Your task to perform on an android device: check data usage Image 0: 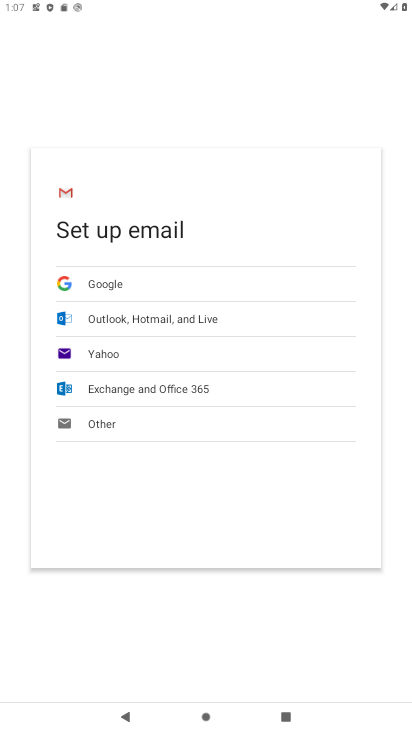
Step 0: press home button
Your task to perform on an android device: check data usage Image 1: 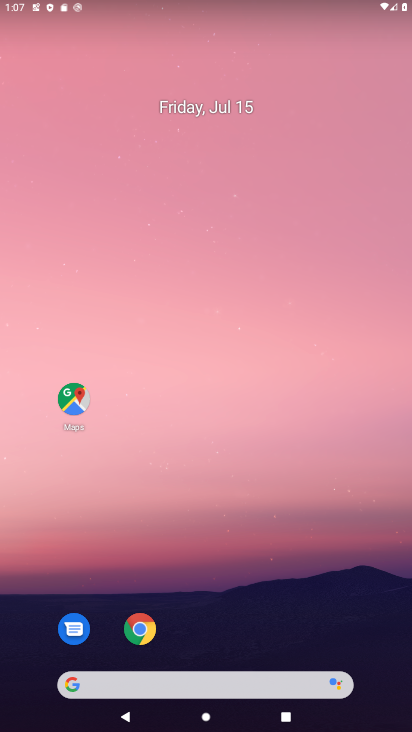
Step 1: drag from (238, 578) to (181, 10)
Your task to perform on an android device: check data usage Image 2: 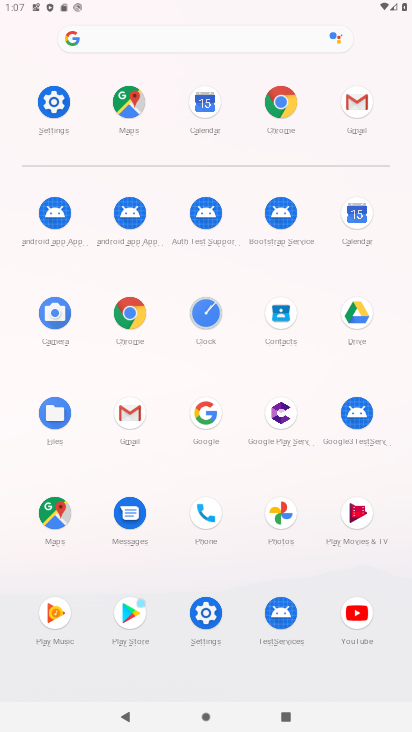
Step 2: click (49, 105)
Your task to perform on an android device: check data usage Image 3: 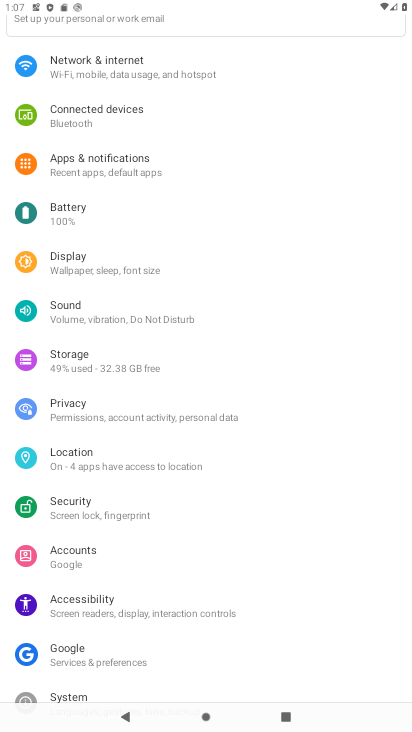
Step 3: click (118, 63)
Your task to perform on an android device: check data usage Image 4: 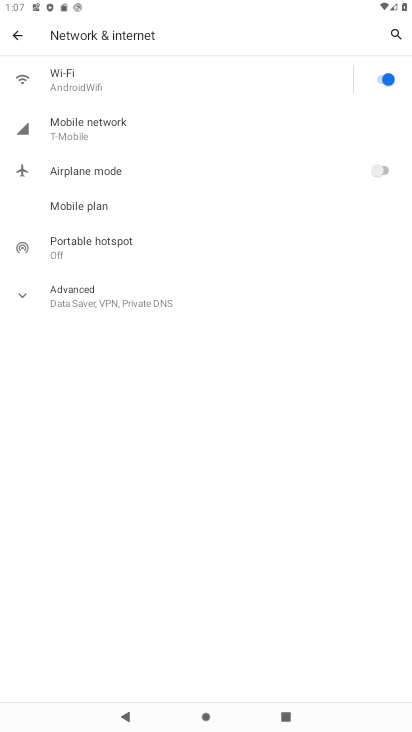
Step 4: click (107, 133)
Your task to perform on an android device: check data usage Image 5: 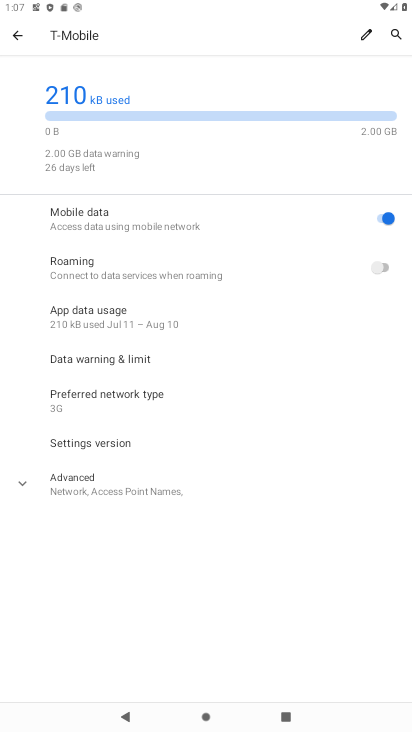
Step 5: task complete